Your task to perform on an android device: turn on priority inbox in the gmail app Image 0: 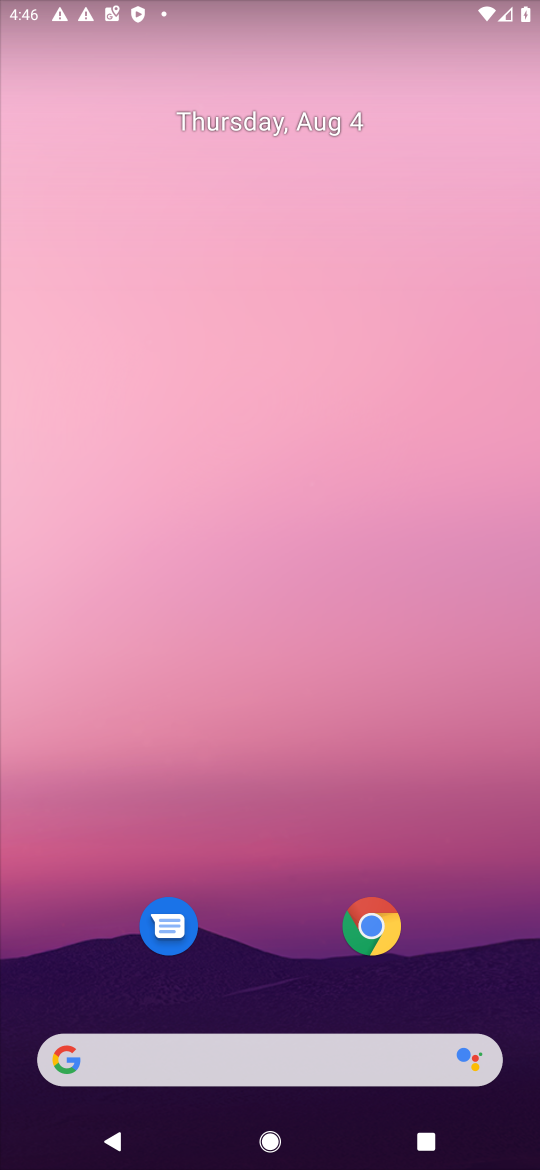
Step 0: drag from (250, 1016) to (381, 258)
Your task to perform on an android device: turn on priority inbox in the gmail app Image 1: 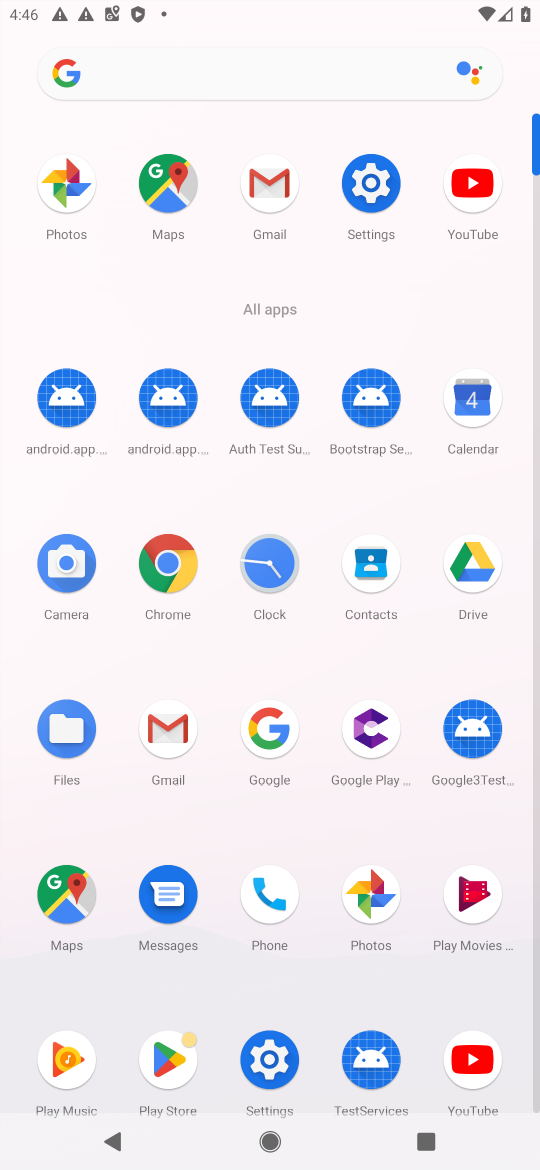
Step 1: click (259, 202)
Your task to perform on an android device: turn on priority inbox in the gmail app Image 2: 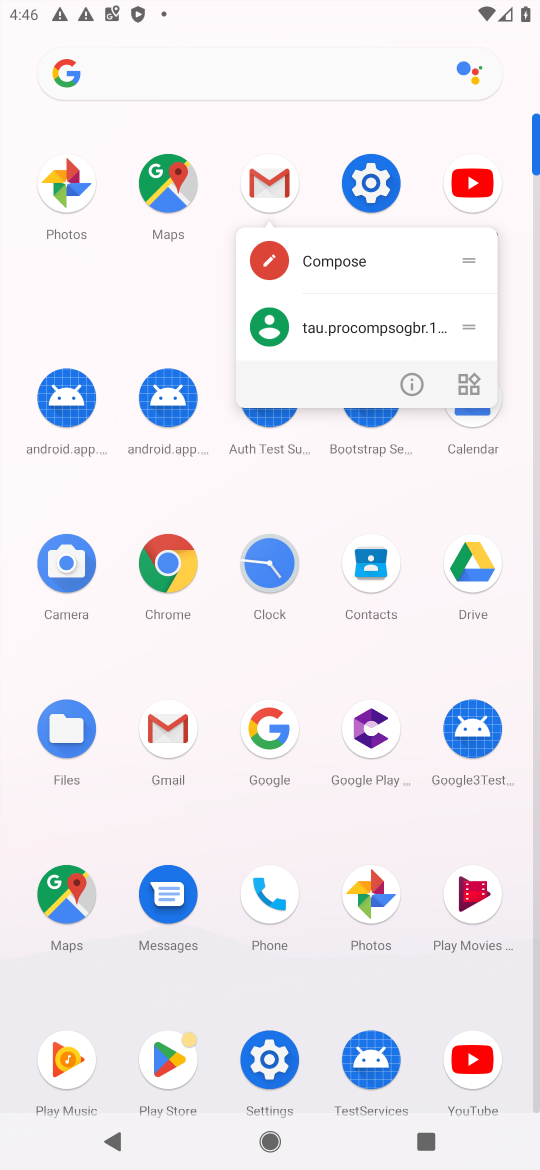
Step 2: click (264, 183)
Your task to perform on an android device: turn on priority inbox in the gmail app Image 3: 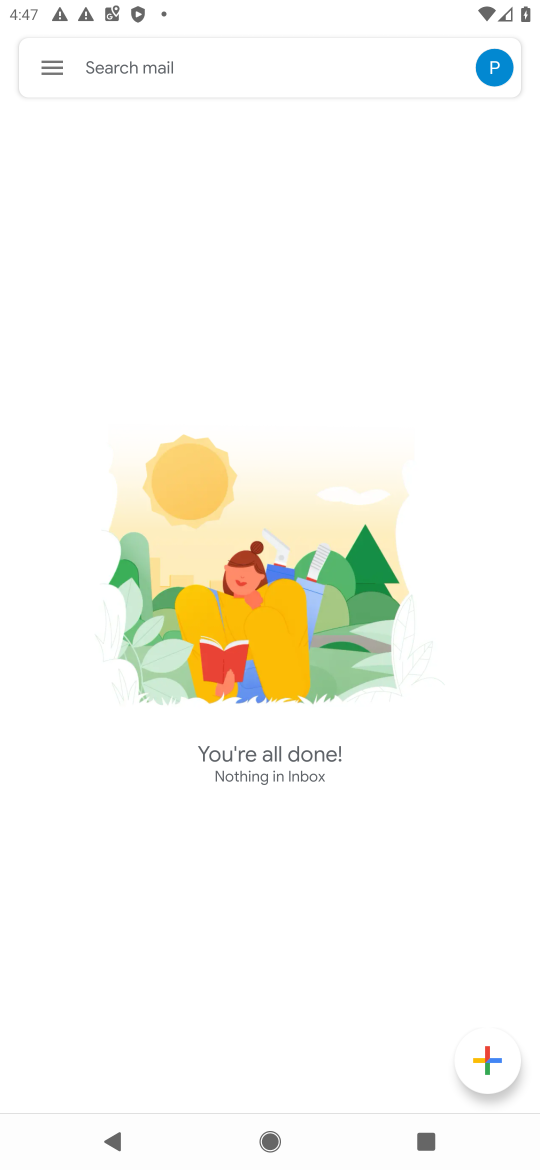
Step 3: click (67, 82)
Your task to perform on an android device: turn on priority inbox in the gmail app Image 4: 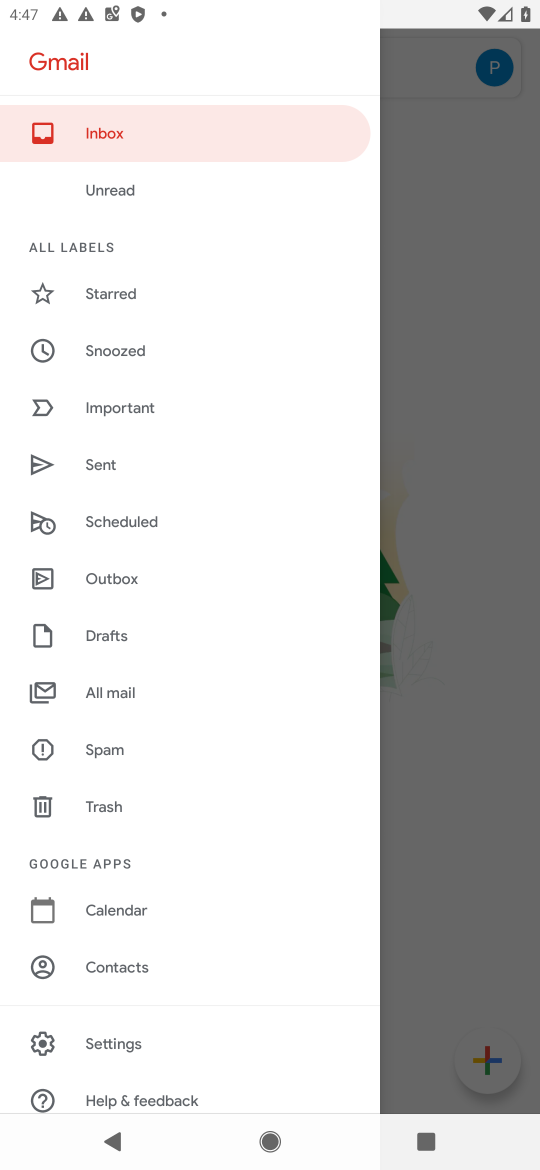
Step 4: click (112, 1054)
Your task to perform on an android device: turn on priority inbox in the gmail app Image 5: 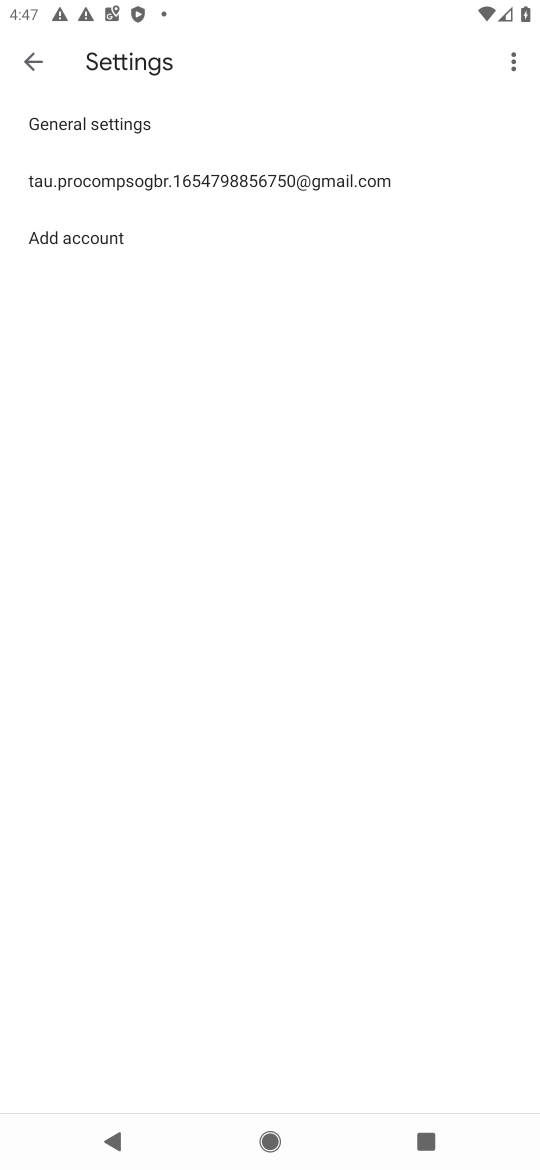
Step 5: click (153, 185)
Your task to perform on an android device: turn on priority inbox in the gmail app Image 6: 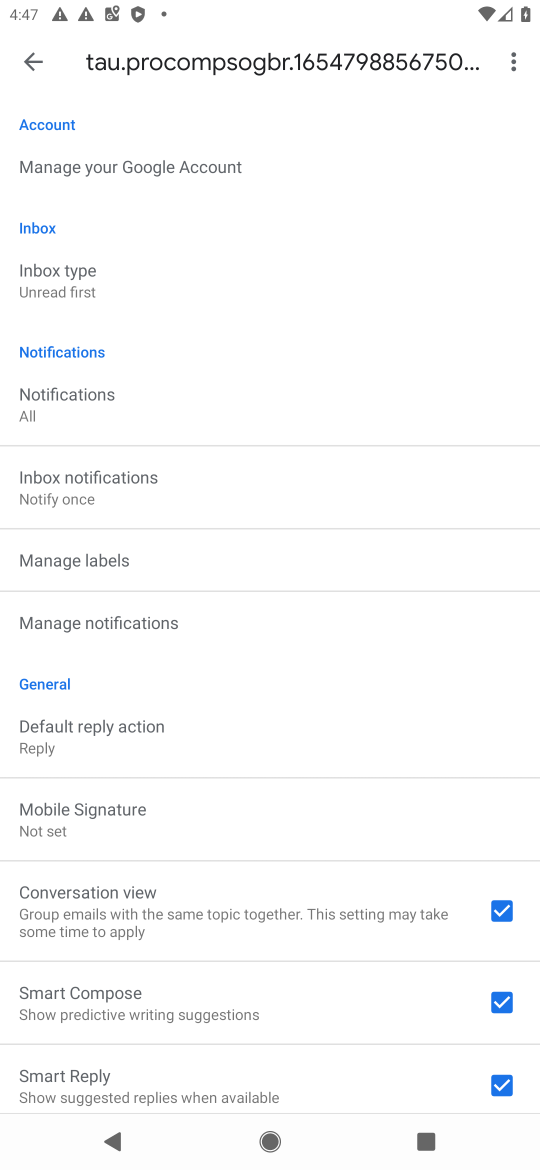
Step 6: click (62, 282)
Your task to perform on an android device: turn on priority inbox in the gmail app Image 7: 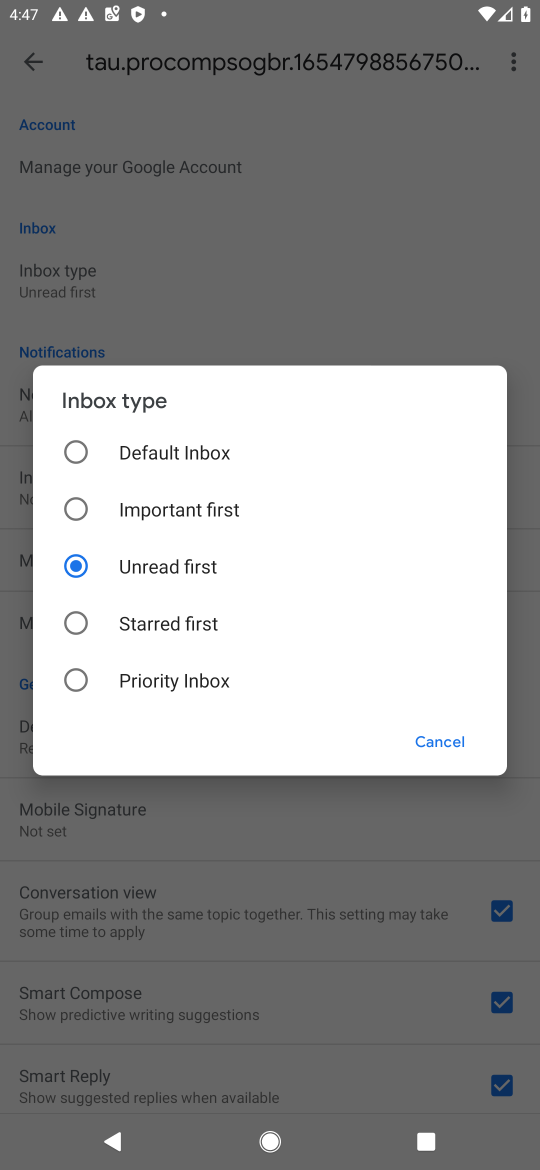
Step 7: click (72, 687)
Your task to perform on an android device: turn on priority inbox in the gmail app Image 8: 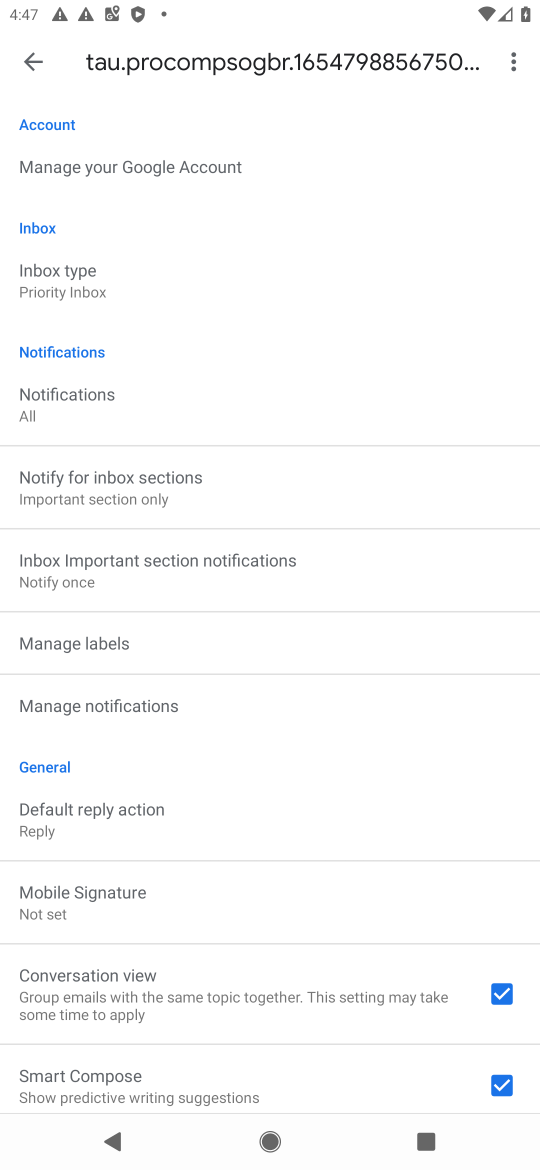
Step 8: task complete